Your task to perform on an android device: check android version Image 0: 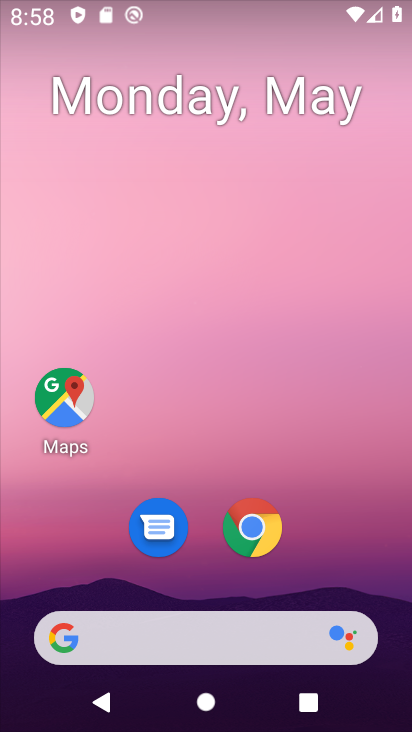
Step 0: drag from (305, 481) to (241, 37)
Your task to perform on an android device: check android version Image 1: 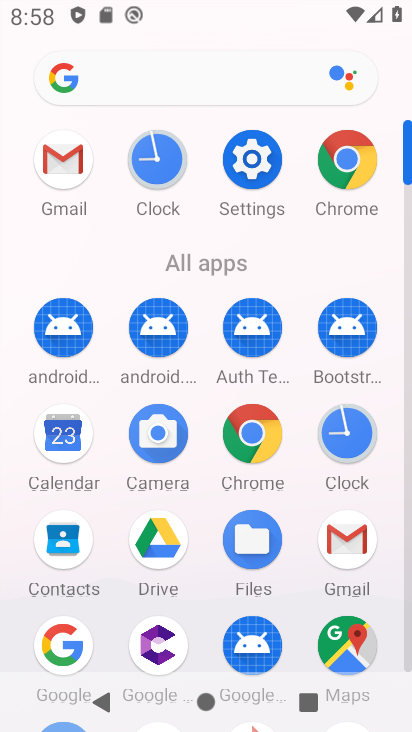
Step 1: drag from (13, 655) to (7, 218)
Your task to perform on an android device: check android version Image 2: 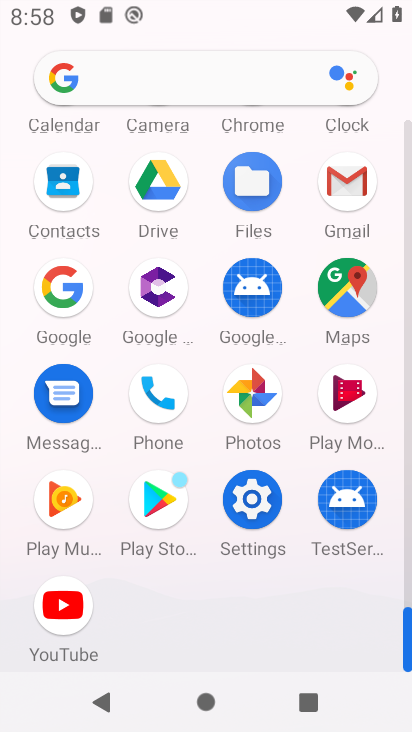
Step 2: click (252, 501)
Your task to perform on an android device: check android version Image 3: 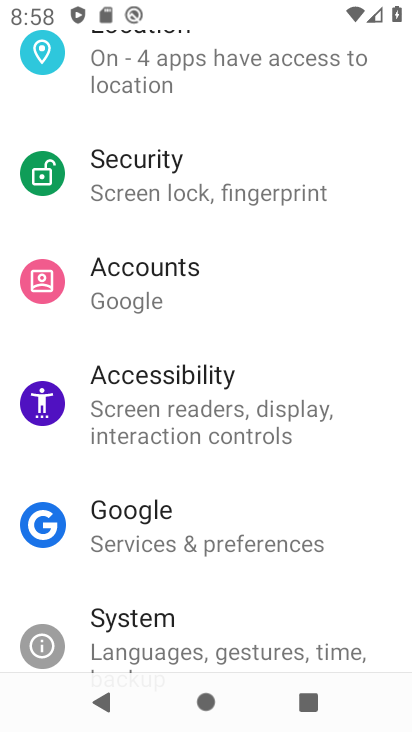
Step 3: drag from (259, 558) to (242, 90)
Your task to perform on an android device: check android version Image 4: 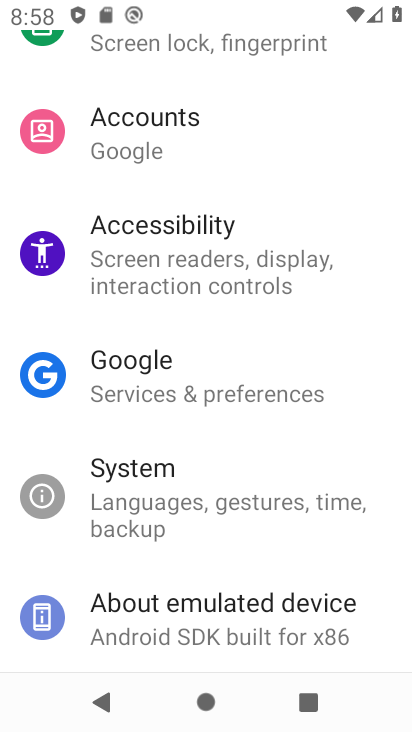
Step 4: click (214, 626)
Your task to perform on an android device: check android version Image 5: 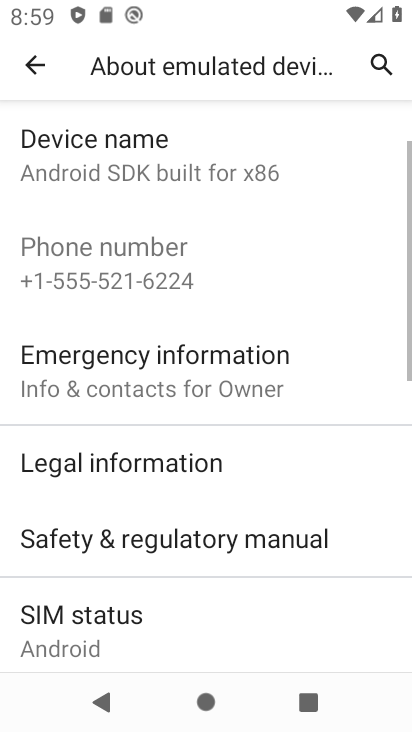
Step 5: task complete